Your task to perform on an android device: Go to Google Image 0: 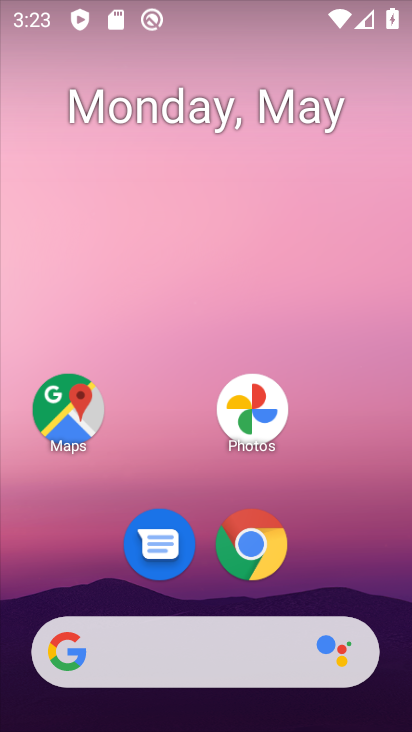
Step 0: drag from (316, 620) to (328, 6)
Your task to perform on an android device: Go to Google Image 1: 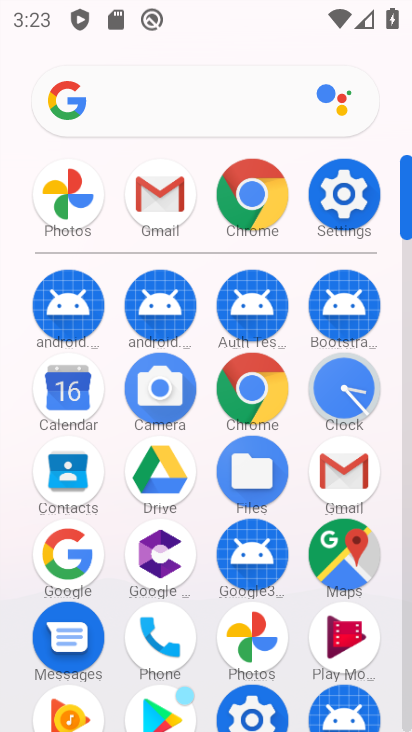
Step 1: click (260, 386)
Your task to perform on an android device: Go to Google Image 2: 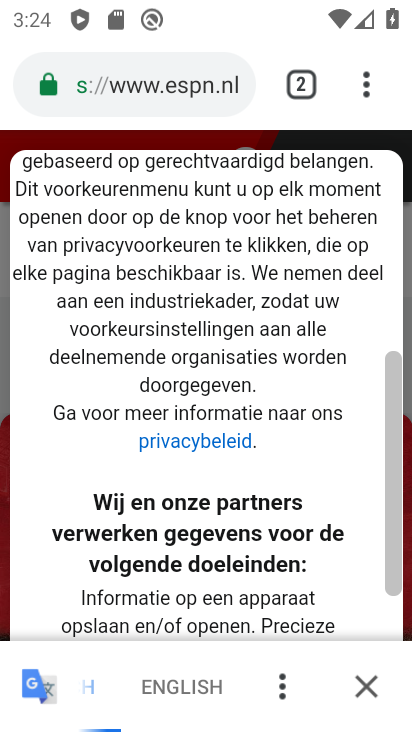
Step 2: click (368, 78)
Your task to perform on an android device: Go to Google Image 3: 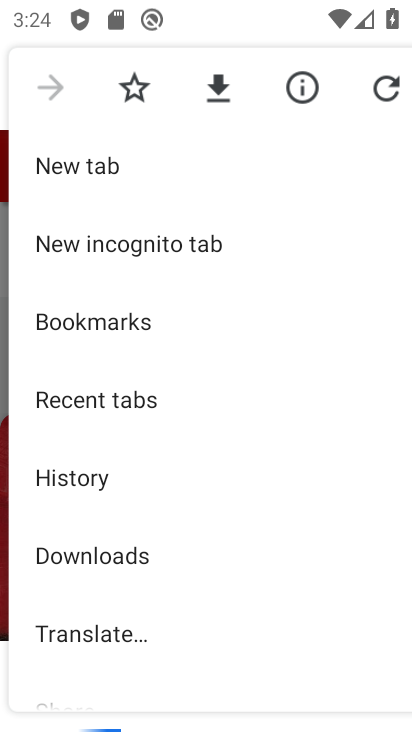
Step 3: click (210, 172)
Your task to perform on an android device: Go to Google Image 4: 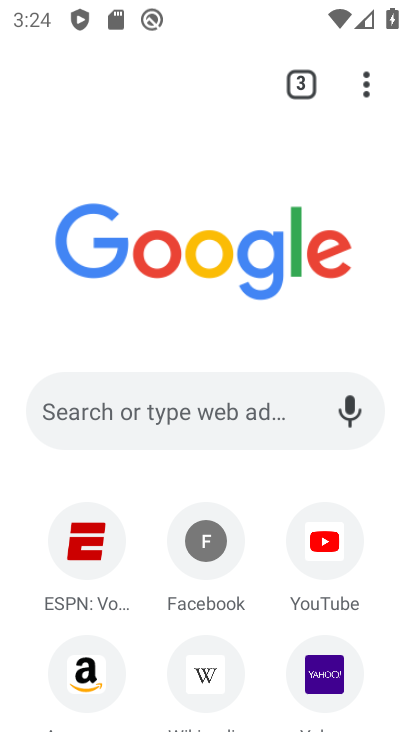
Step 4: task complete